Your task to perform on an android device: Go to display settings Image 0: 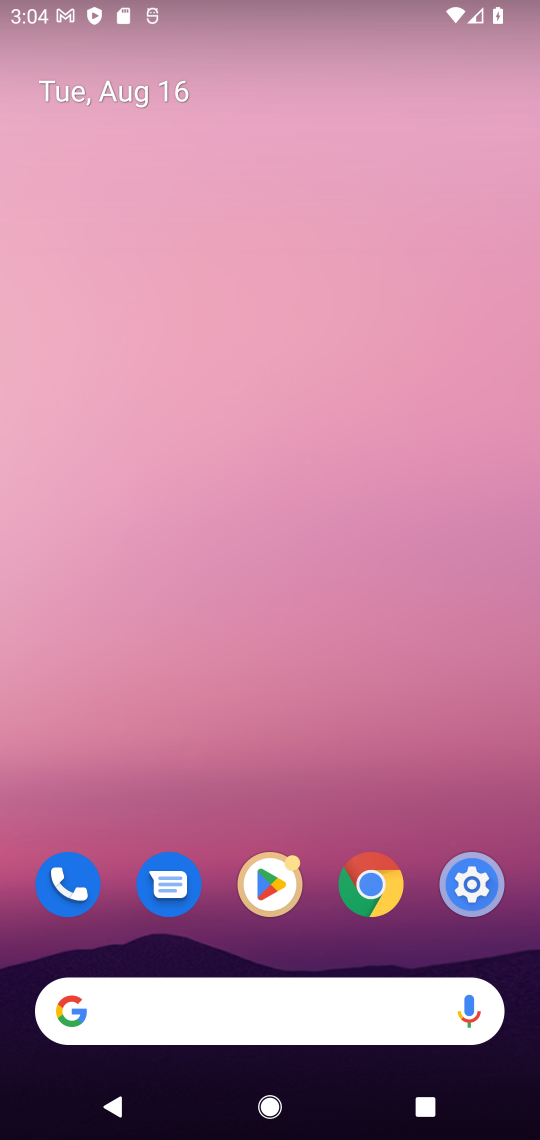
Step 0: drag from (244, 795) to (290, 131)
Your task to perform on an android device: Go to display settings Image 1: 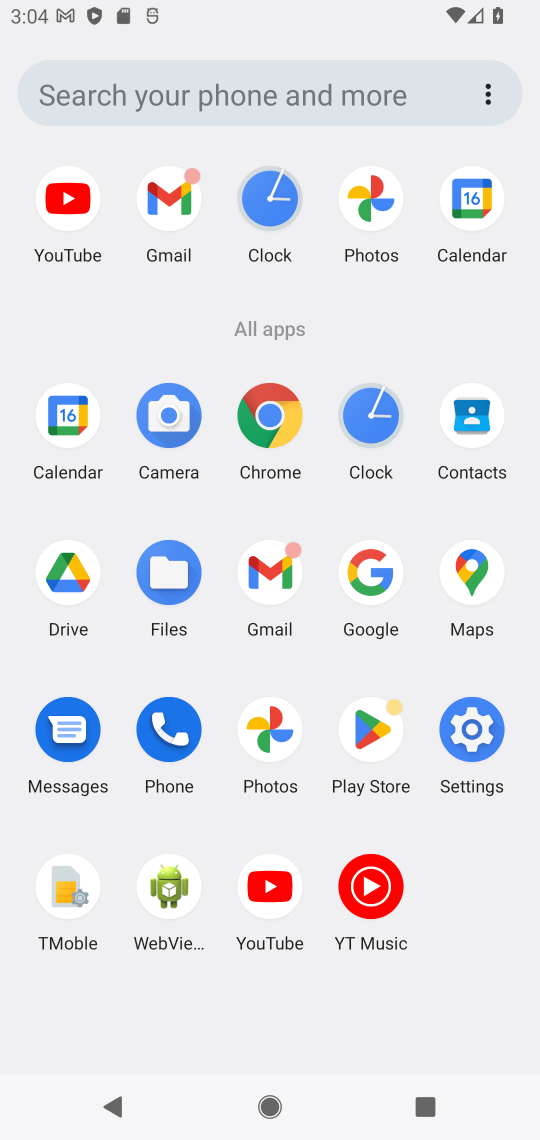
Step 1: click (468, 740)
Your task to perform on an android device: Go to display settings Image 2: 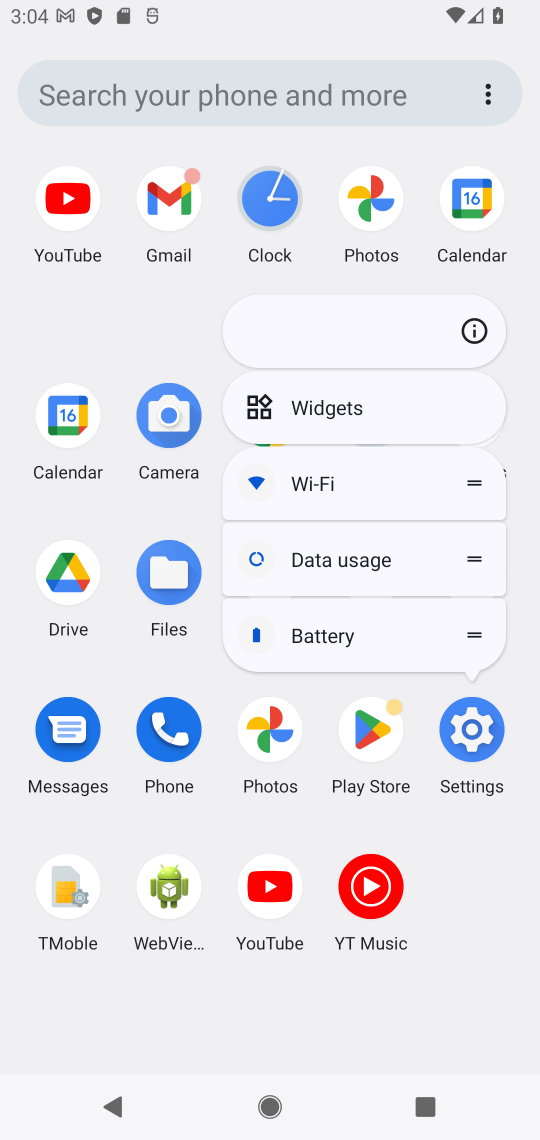
Step 2: click (479, 728)
Your task to perform on an android device: Go to display settings Image 3: 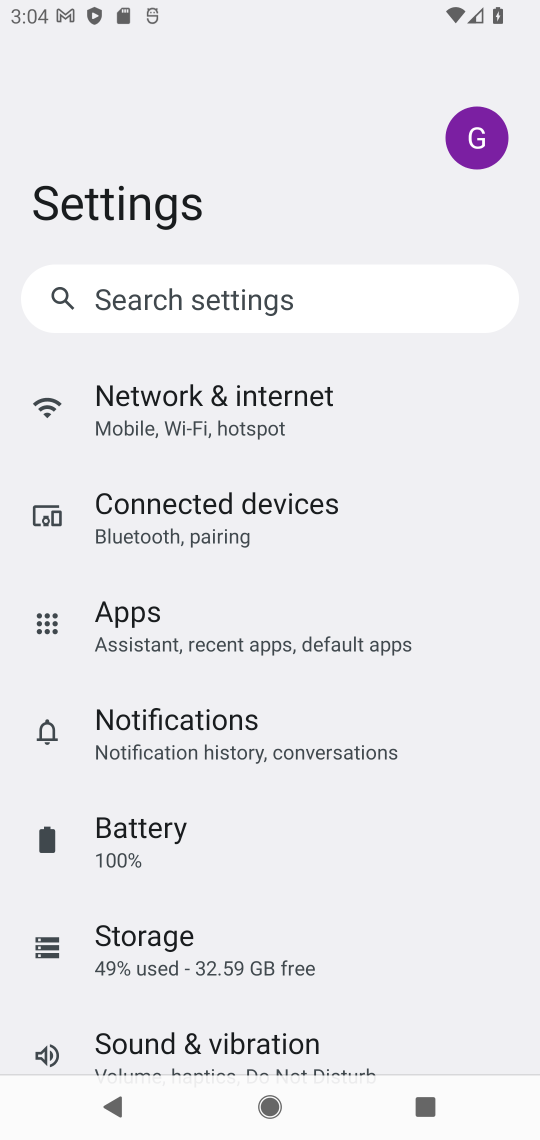
Step 3: drag from (228, 695) to (241, 401)
Your task to perform on an android device: Go to display settings Image 4: 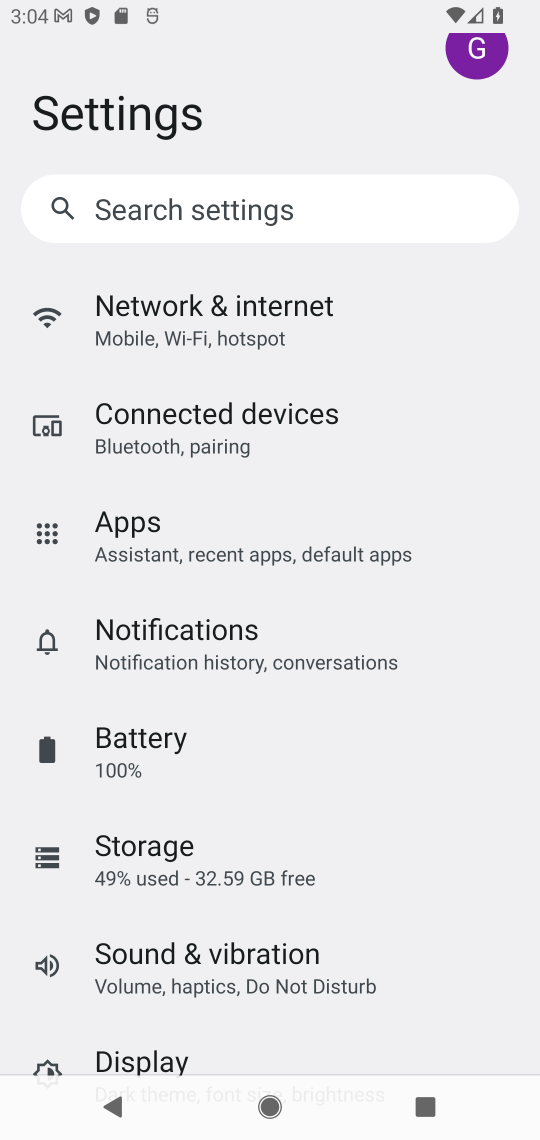
Step 4: drag from (310, 860) to (338, 372)
Your task to perform on an android device: Go to display settings Image 5: 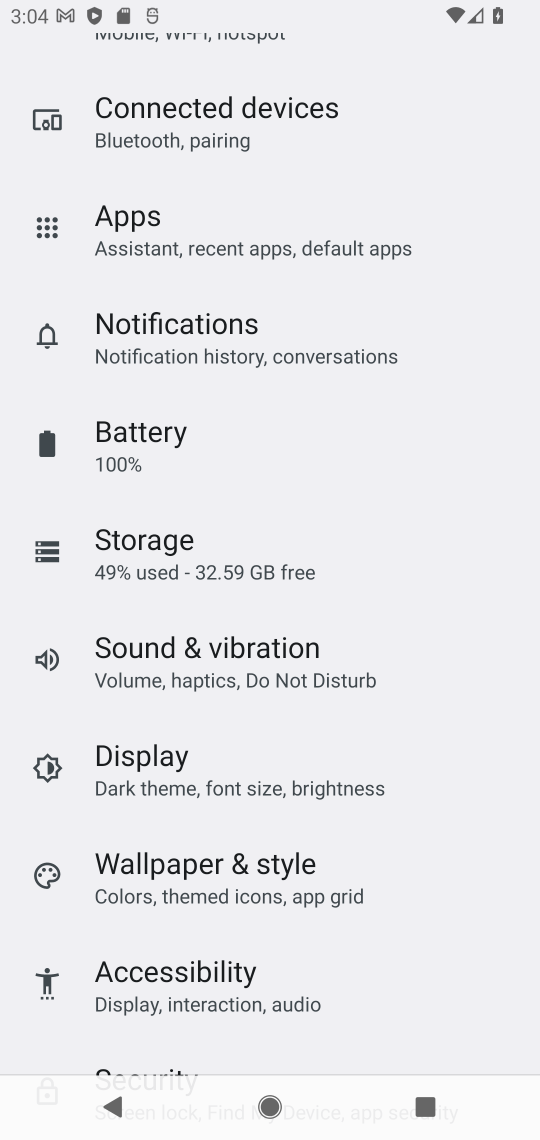
Step 5: click (153, 767)
Your task to perform on an android device: Go to display settings Image 6: 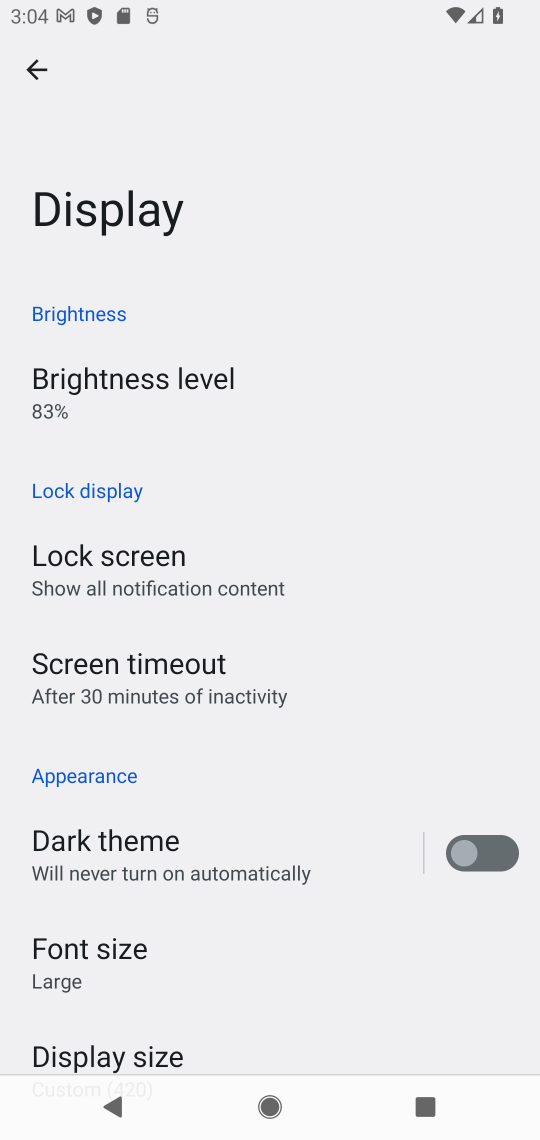
Step 6: task complete